Your task to perform on an android device: Search for dell alienware on costco, select the first entry, and add it to the cart. Image 0: 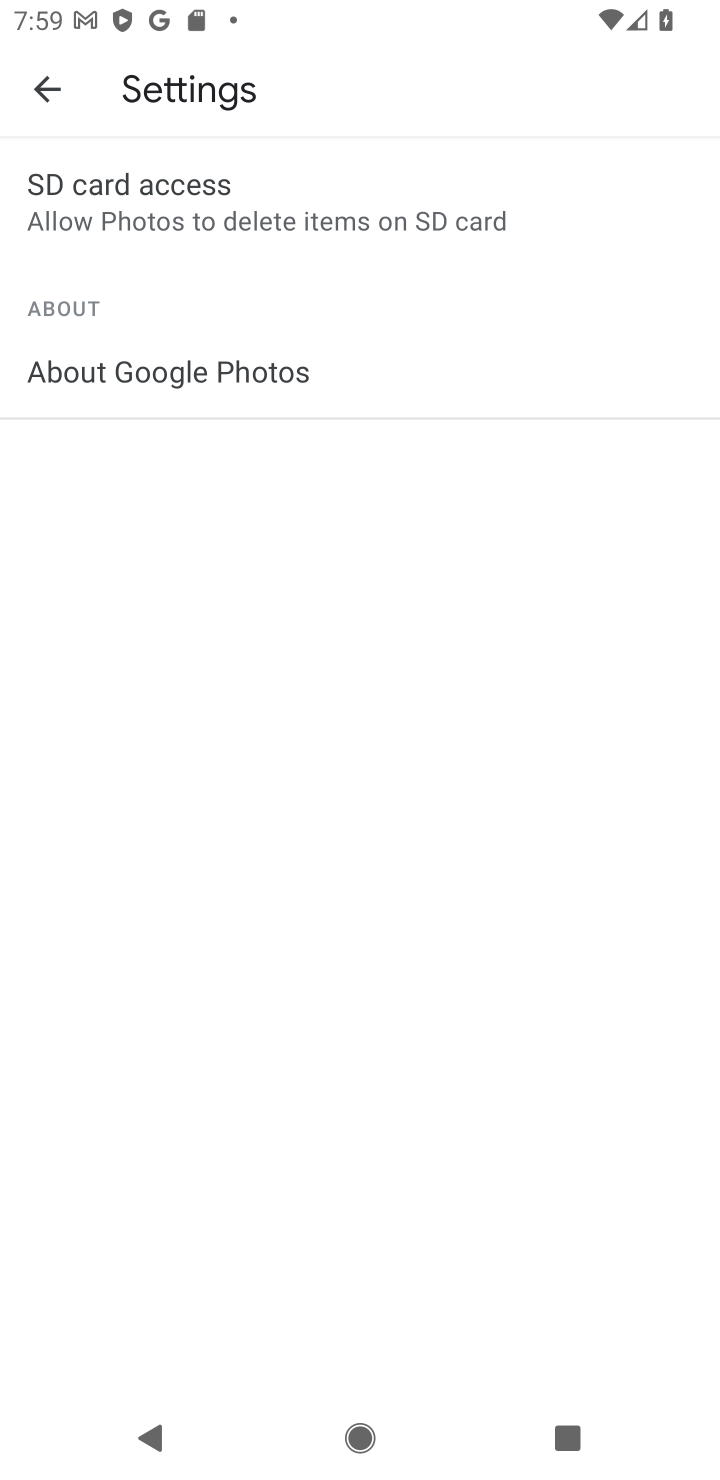
Step 0: press home button
Your task to perform on an android device: Search for dell alienware on costco, select the first entry, and add it to the cart. Image 1: 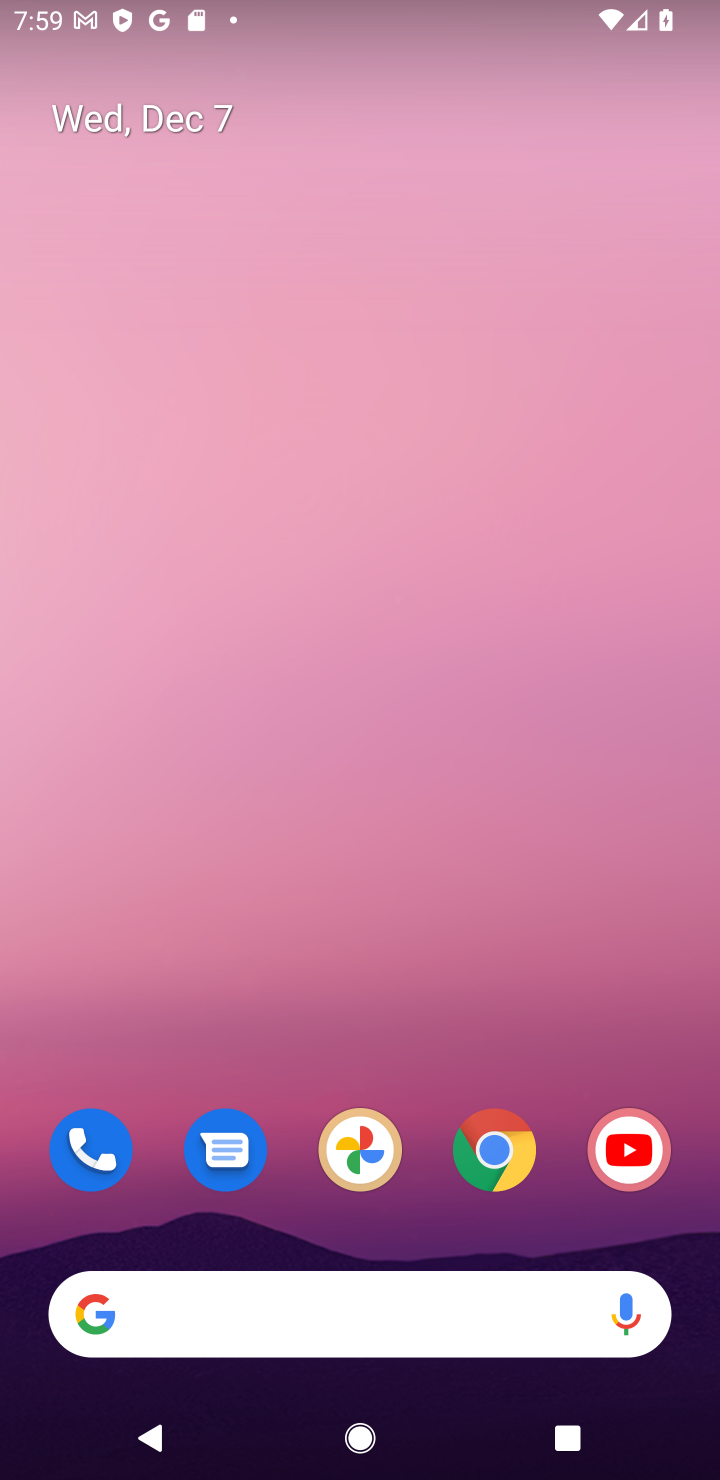
Step 1: click (500, 1140)
Your task to perform on an android device: Search for dell alienware on costco, select the first entry, and add it to the cart. Image 2: 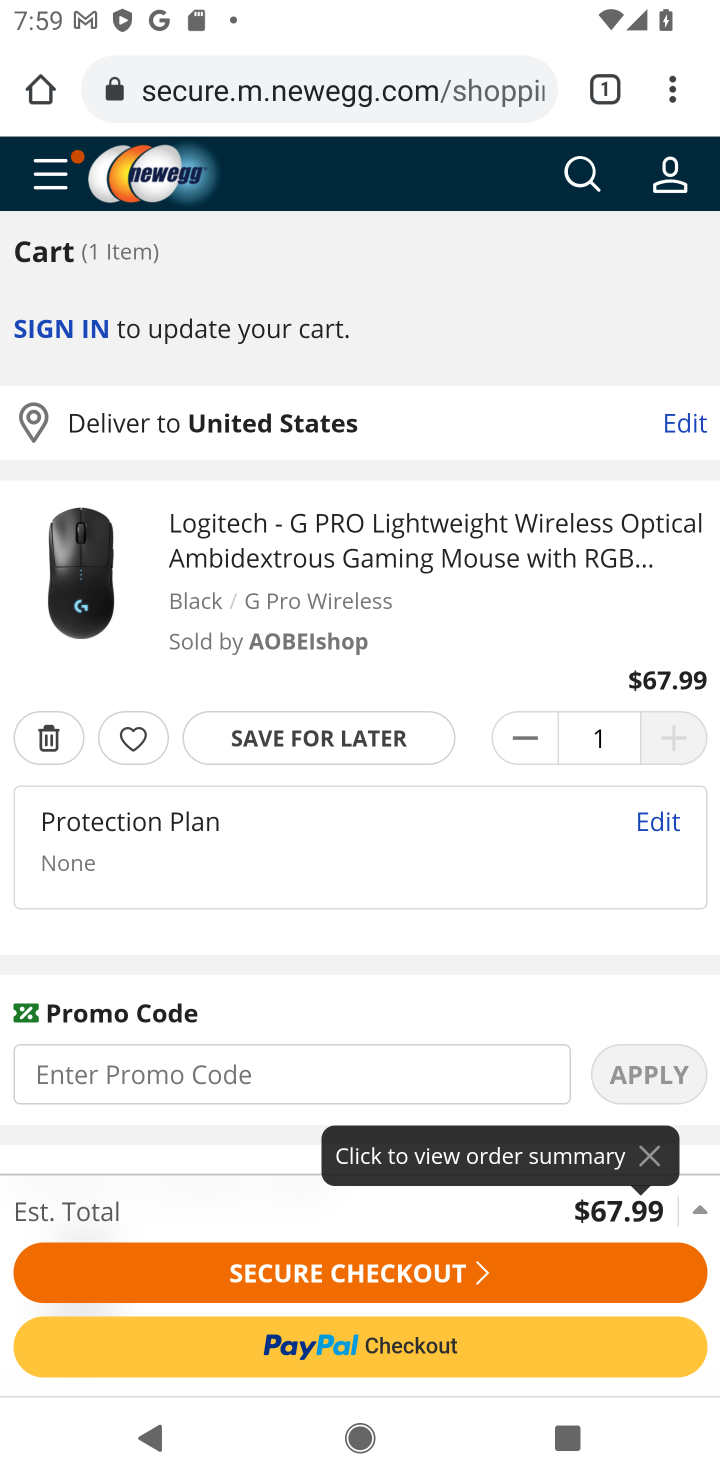
Step 2: click (442, 78)
Your task to perform on an android device: Search for dell alienware on costco, select the first entry, and add it to the cart. Image 3: 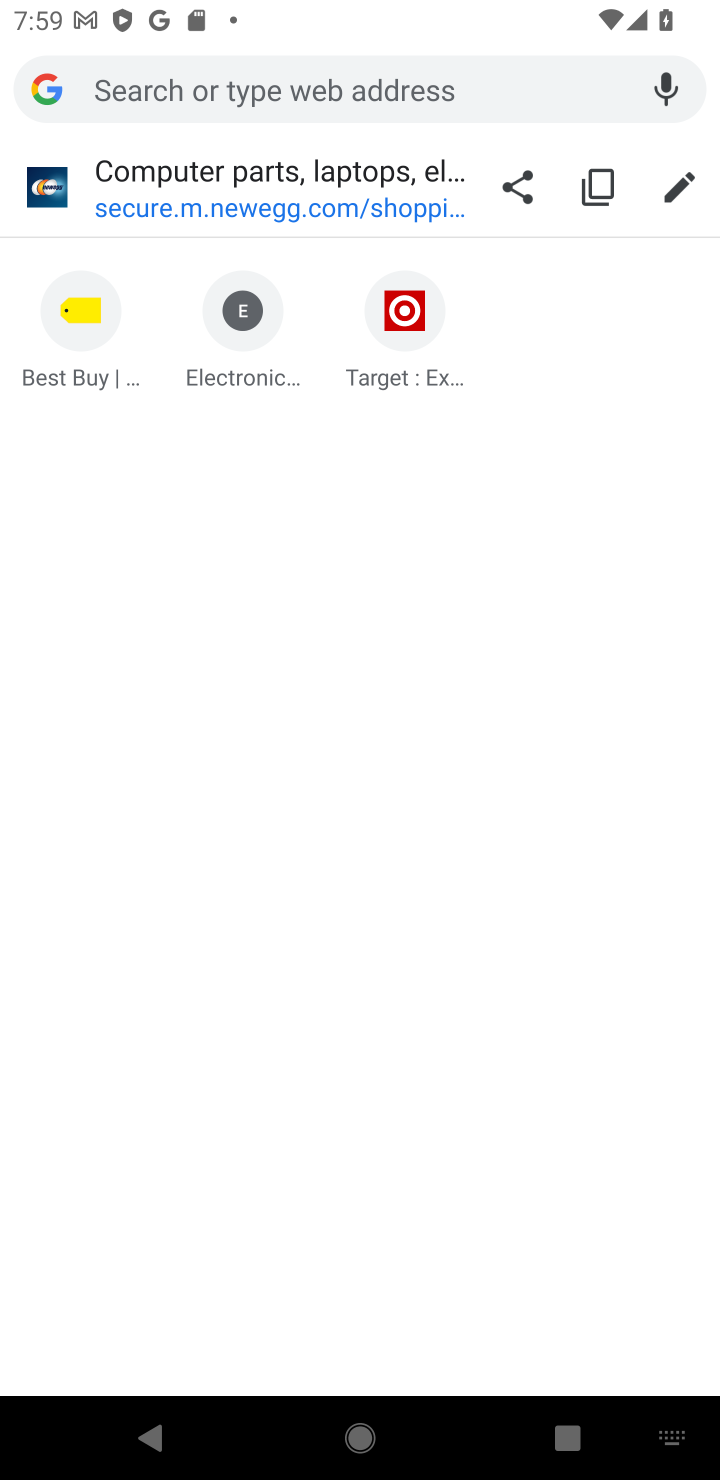
Step 3: type "costco"
Your task to perform on an android device: Search for dell alienware on costco, select the first entry, and add it to the cart. Image 4: 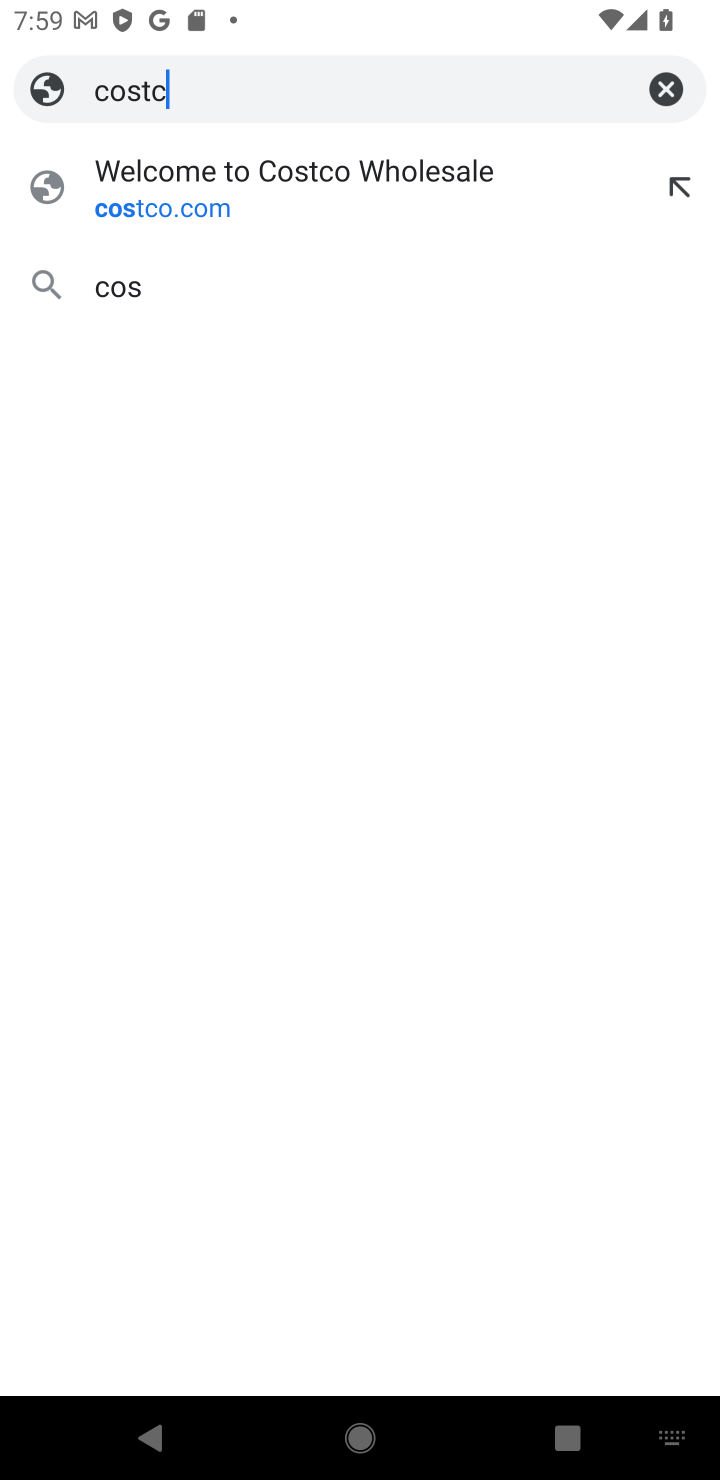
Step 4: press enter
Your task to perform on an android device: Search for dell alienware on costco, select the first entry, and add it to the cart. Image 5: 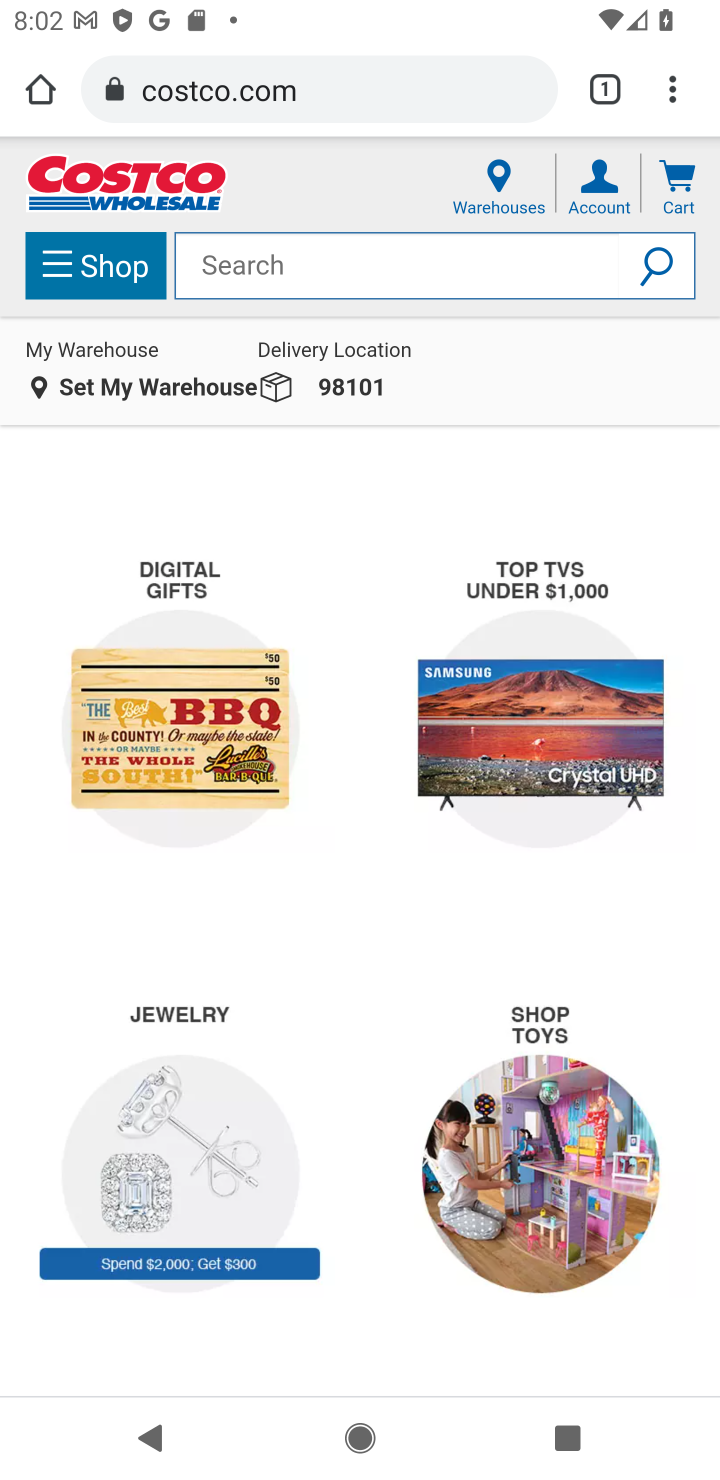
Step 5: click (447, 264)
Your task to perform on an android device: Search for dell alienware on costco, select the first entry, and add it to the cart. Image 6: 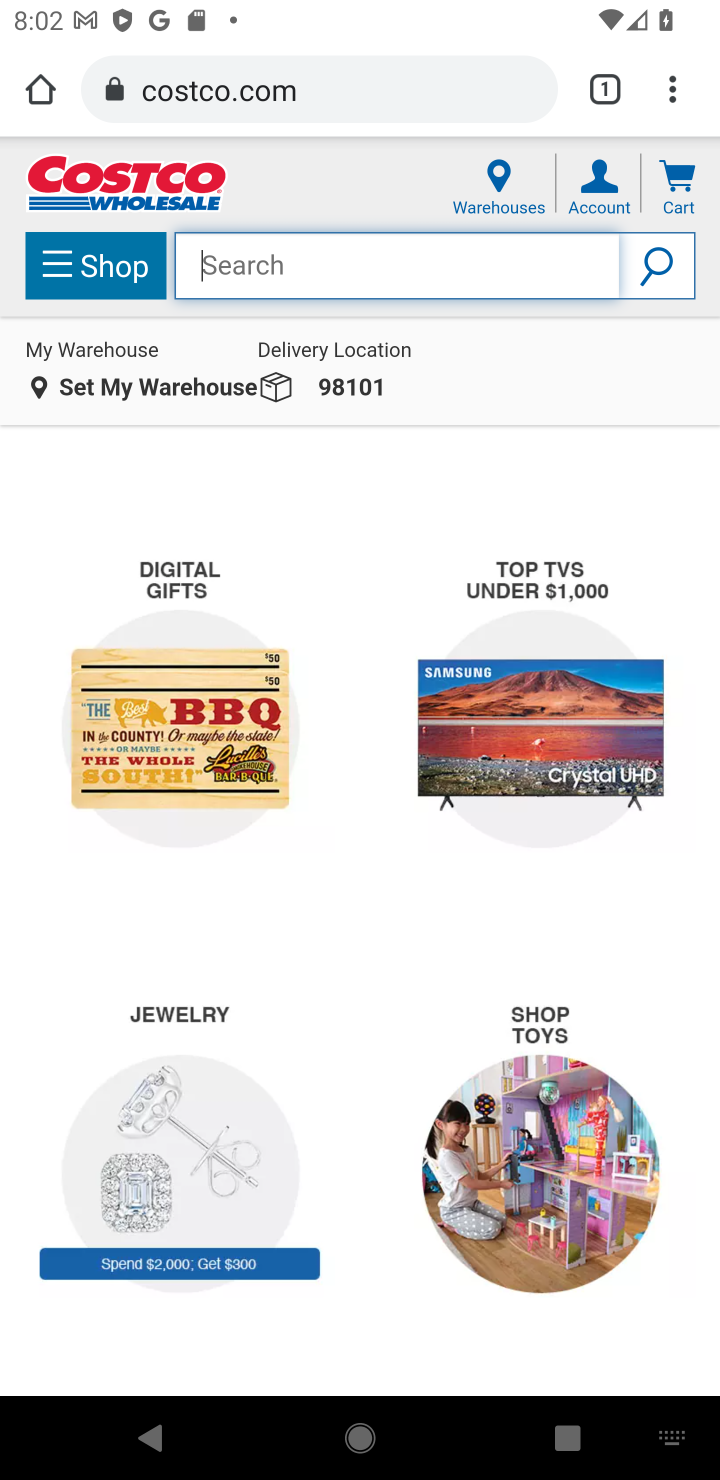
Step 6: type " dell alienware"
Your task to perform on an android device: Search for dell alienware on costco, select the first entry, and add it to the cart. Image 7: 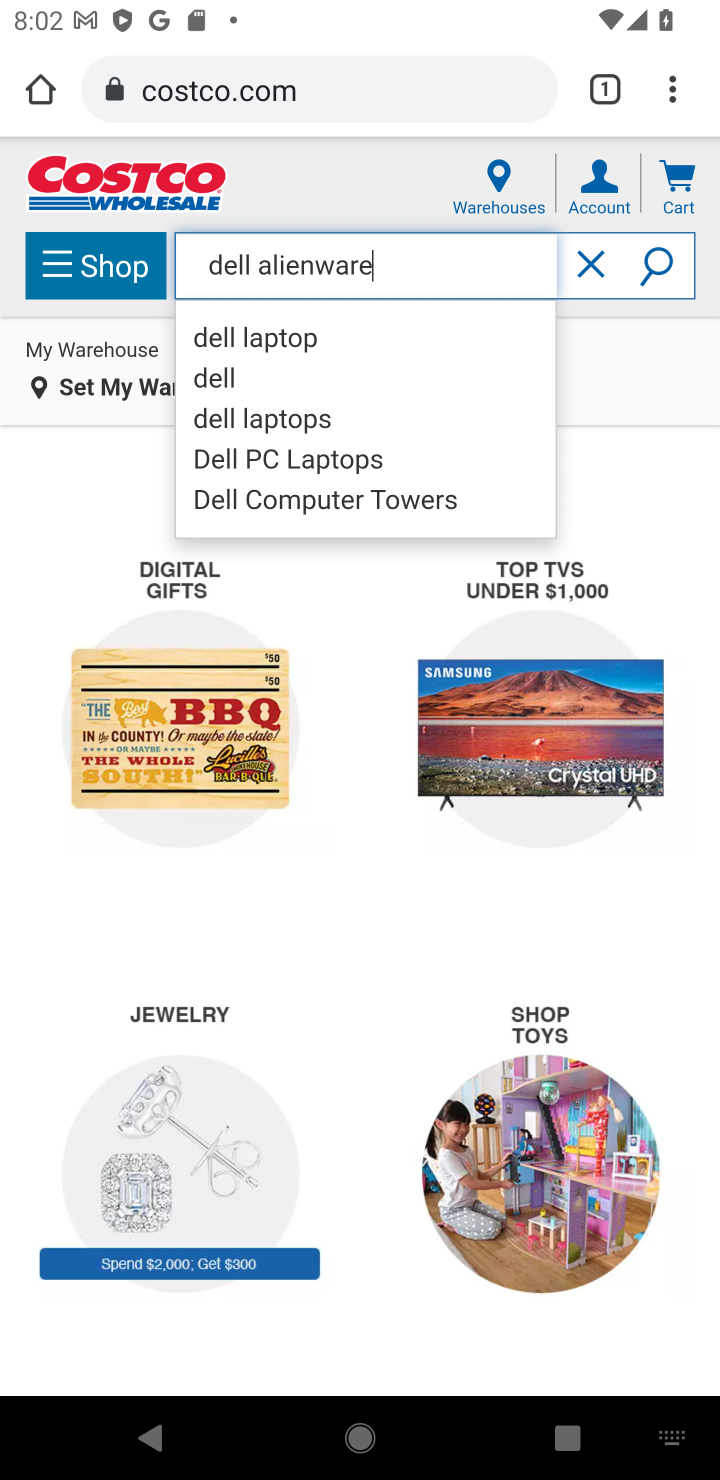
Step 7: click (660, 253)
Your task to perform on an android device: Search for dell alienware on costco, select the first entry, and add it to the cart. Image 8: 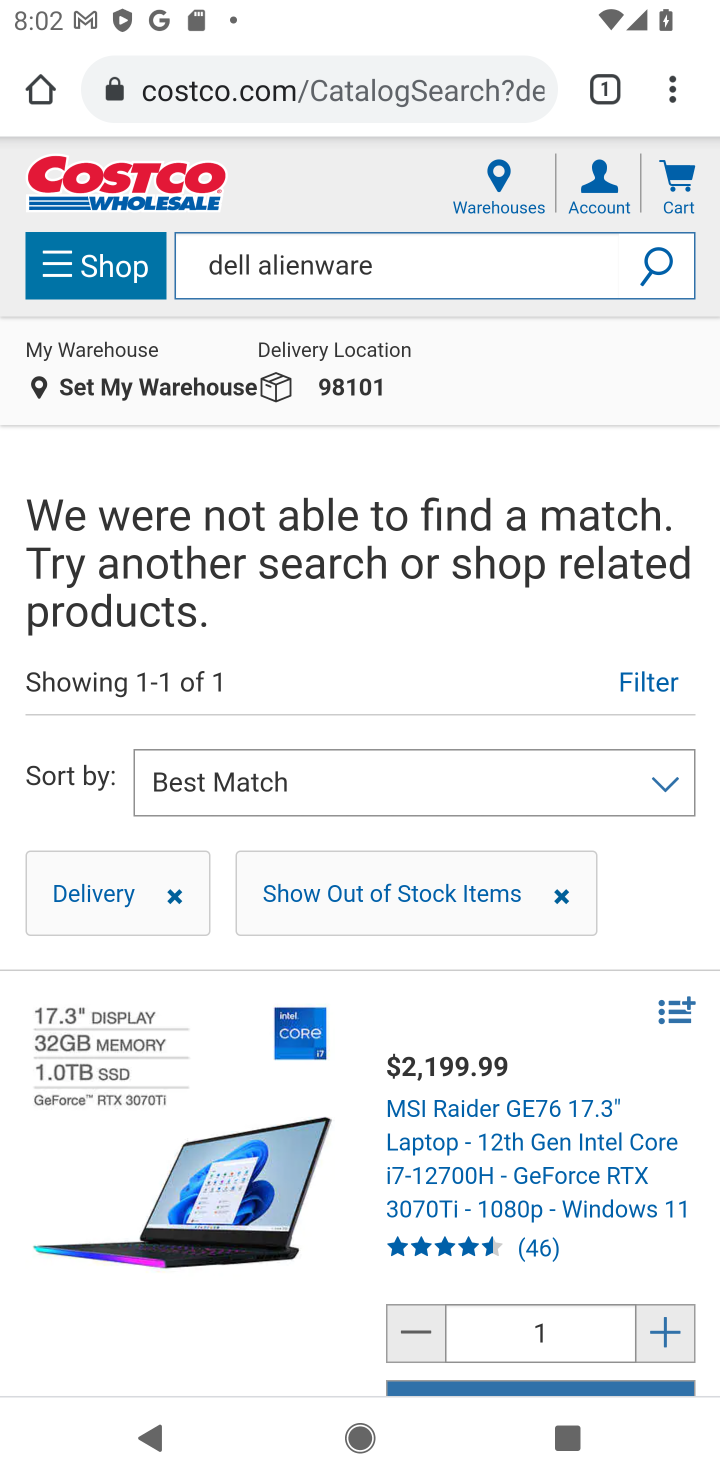
Step 8: task complete